Your task to perform on an android device: uninstall "Google Play Music" Image 0: 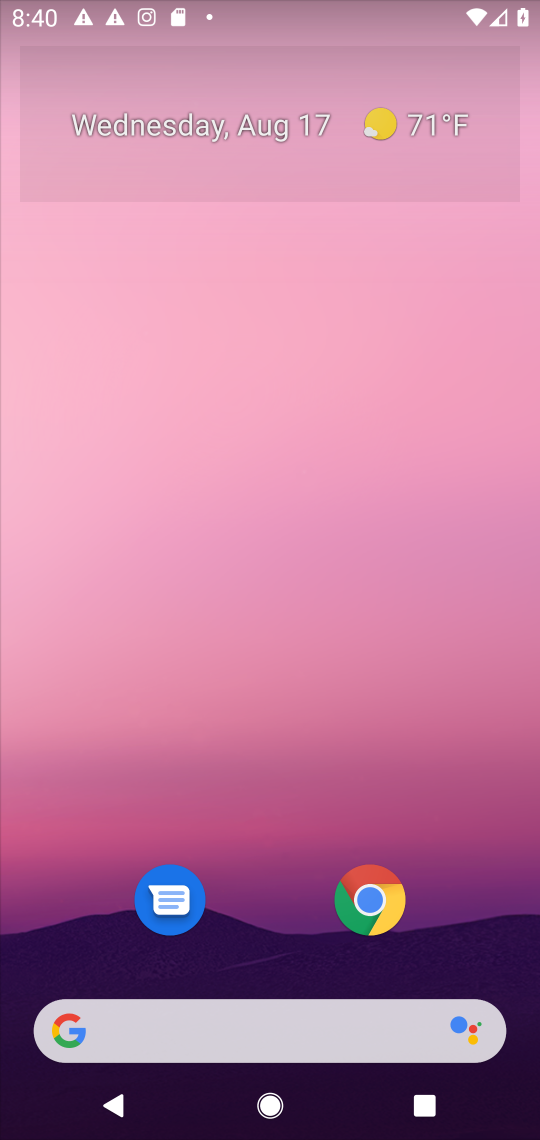
Step 0: drag from (256, 720) to (233, 295)
Your task to perform on an android device: uninstall "Google Play Music" Image 1: 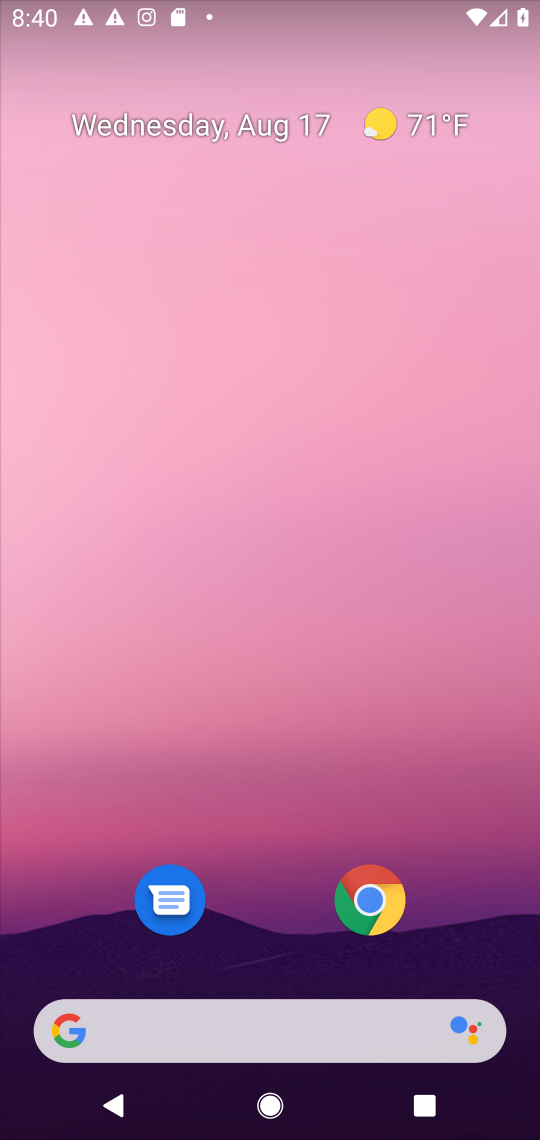
Step 1: drag from (314, 880) to (392, 276)
Your task to perform on an android device: uninstall "Google Play Music" Image 2: 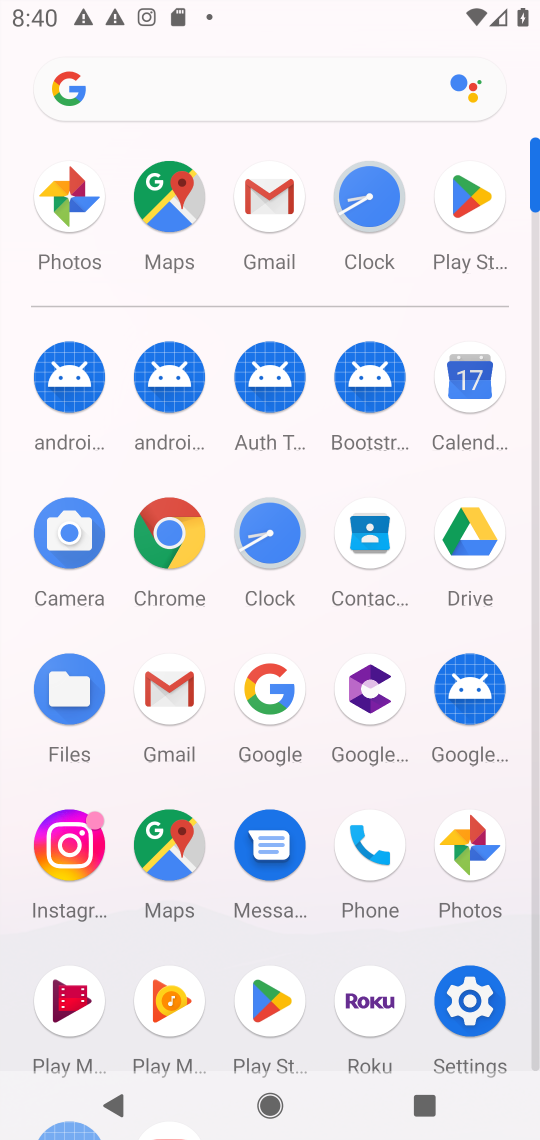
Step 2: click (452, 211)
Your task to perform on an android device: uninstall "Google Play Music" Image 3: 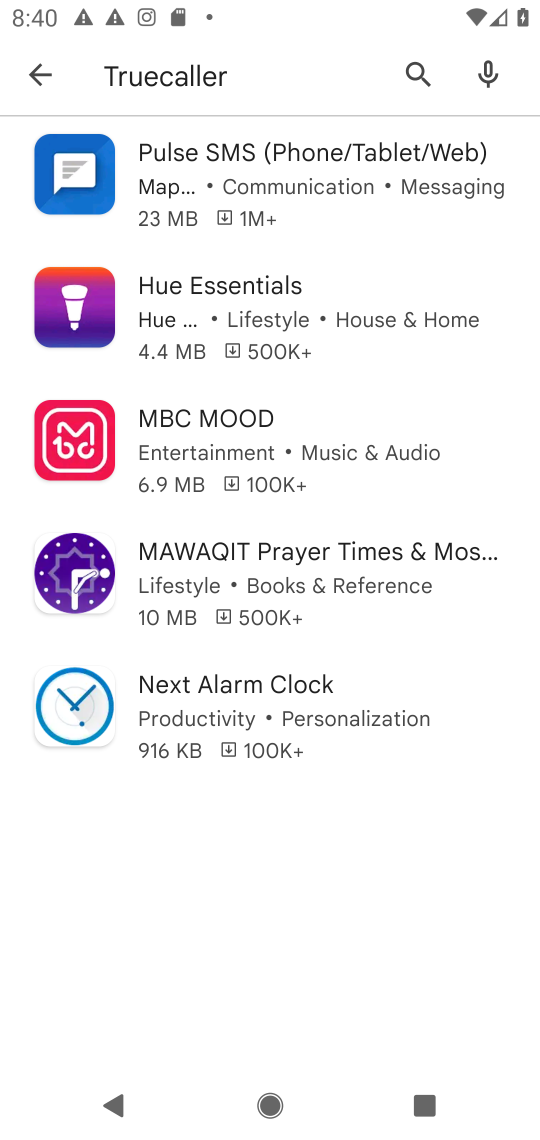
Step 3: click (42, 86)
Your task to perform on an android device: uninstall "Google Play Music" Image 4: 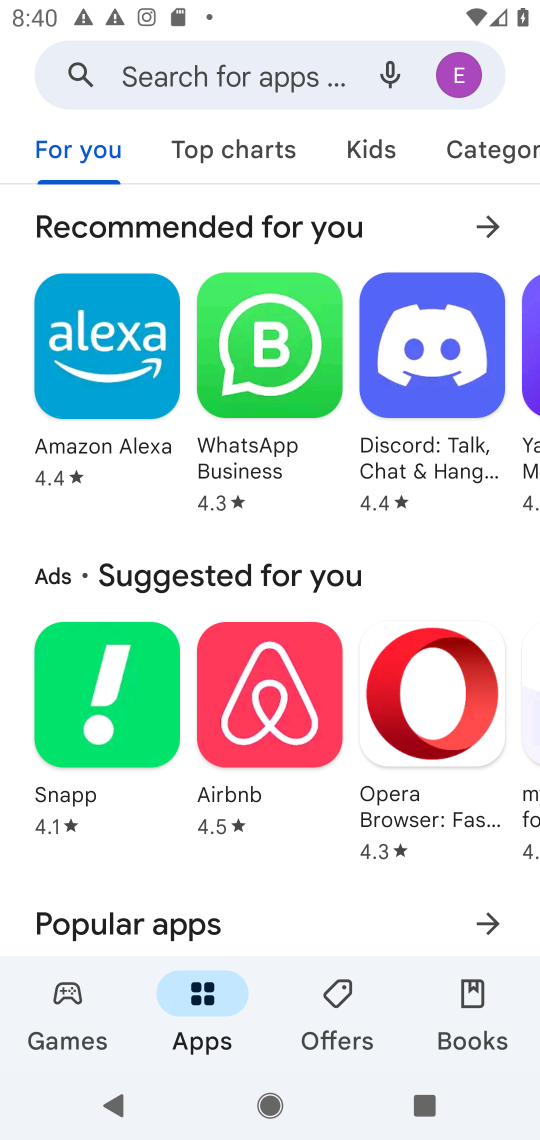
Step 4: click (210, 94)
Your task to perform on an android device: uninstall "Google Play Music" Image 5: 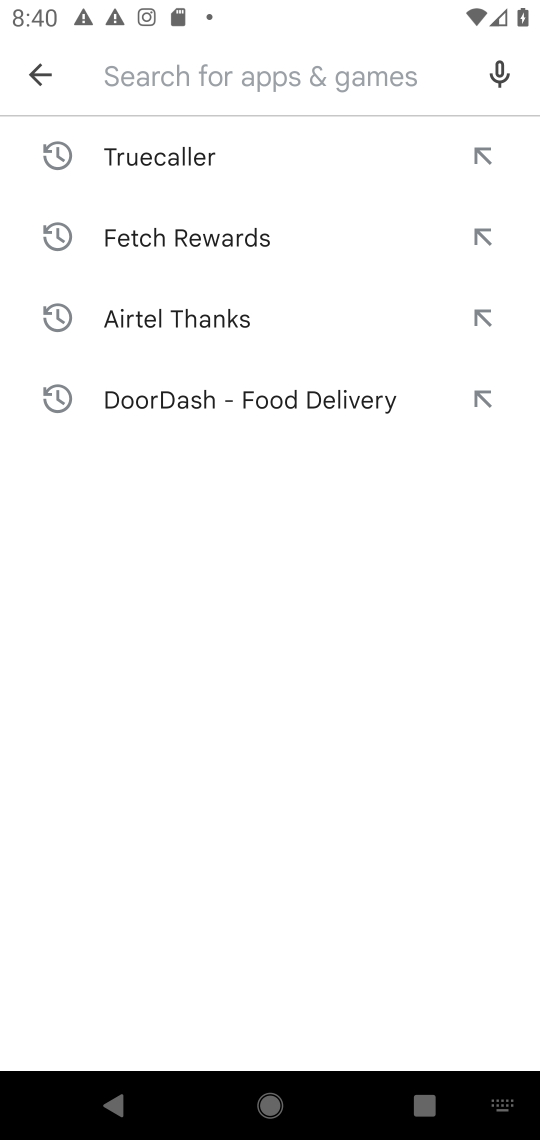
Step 5: click (440, 775)
Your task to perform on an android device: uninstall "Google Play Music" Image 6: 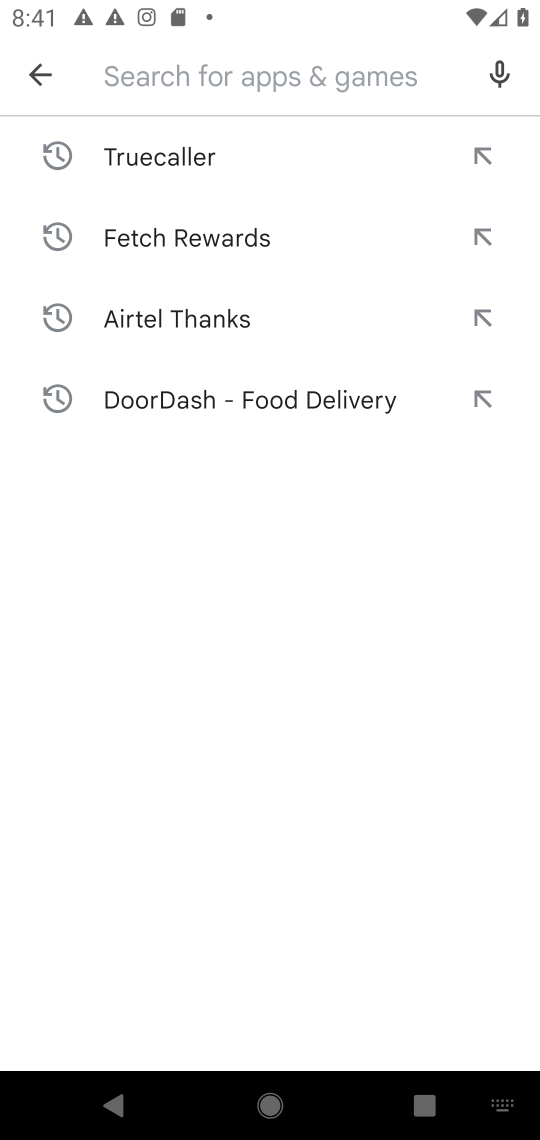
Step 6: type "Google Play Music"
Your task to perform on an android device: uninstall "Google Play Music" Image 7: 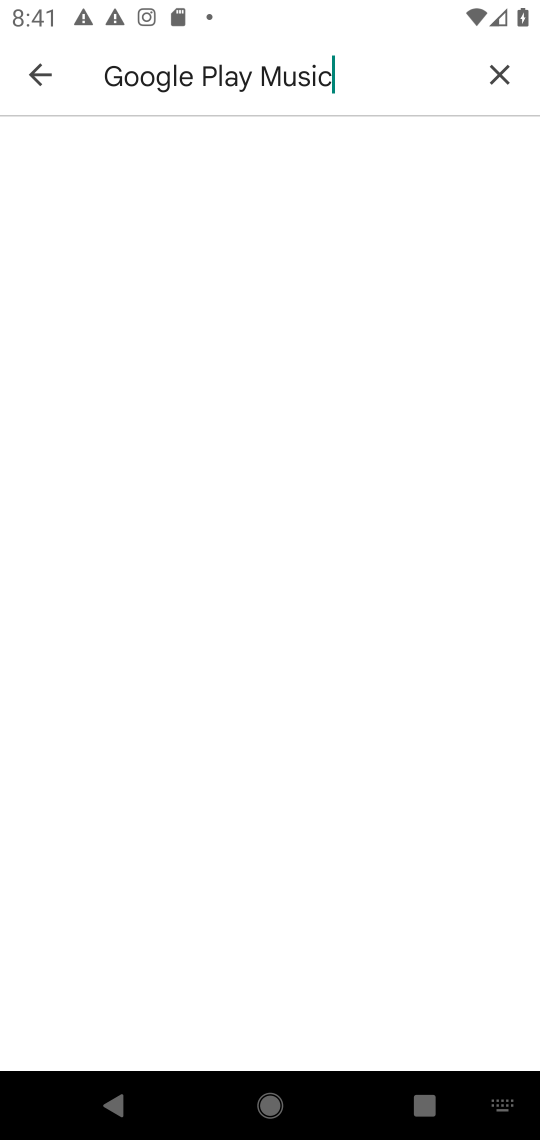
Step 7: press enter
Your task to perform on an android device: uninstall "Google Play Music" Image 8: 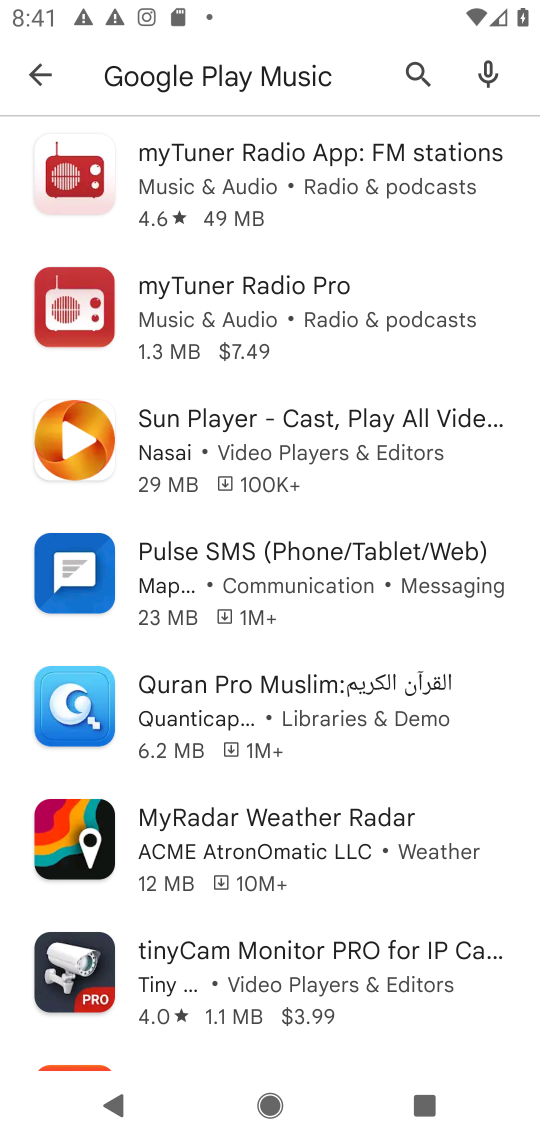
Step 8: task complete